Your task to perform on an android device: delete browsing data in the chrome app Image 0: 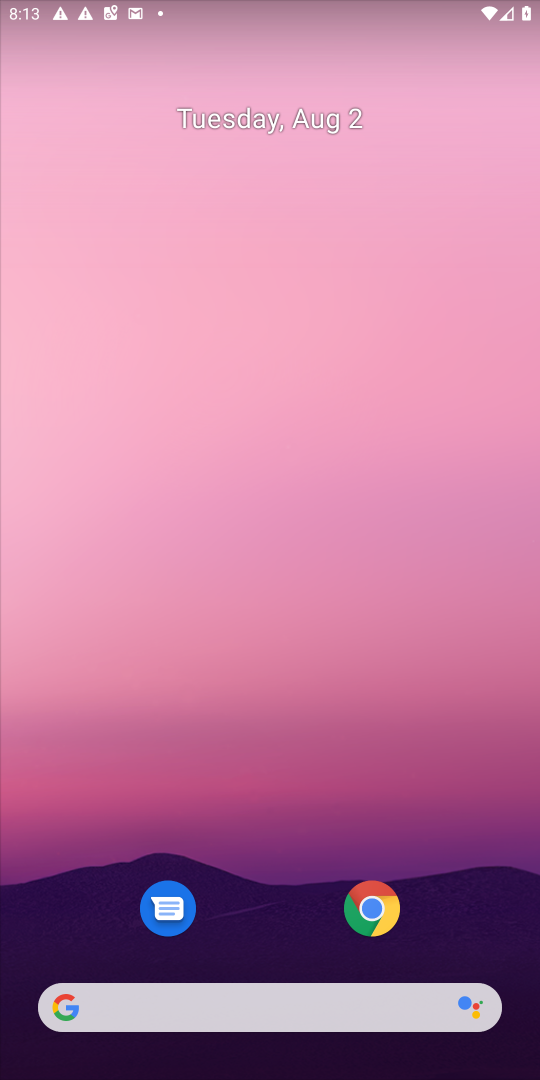
Step 0: click (355, 920)
Your task to perform on an android device: delete browsing data in the chrome app Image 1: 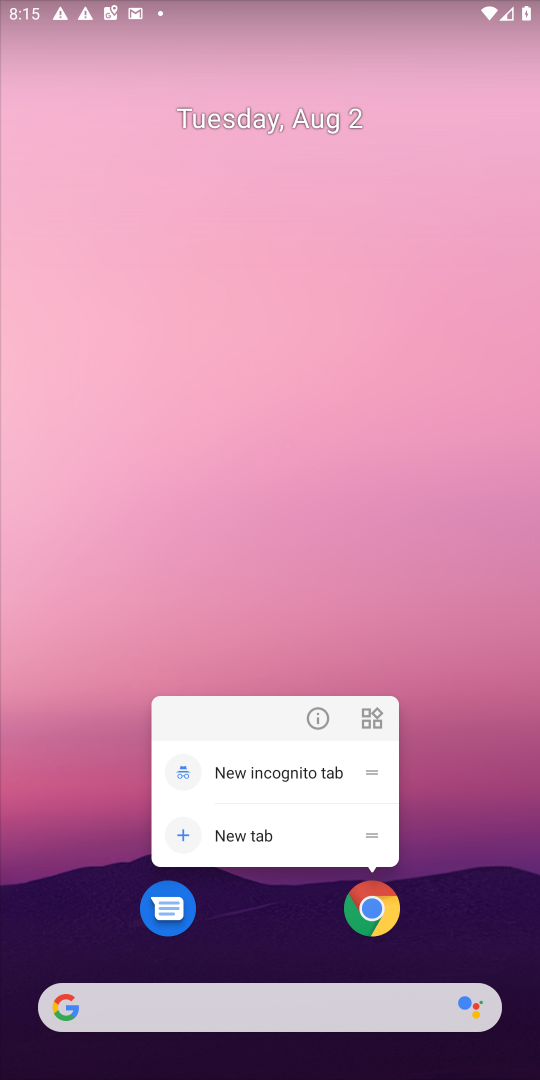
Step 1: click (363, 913)
Your task to perform on an android device: delete browsing data in the chrome app Image 2: 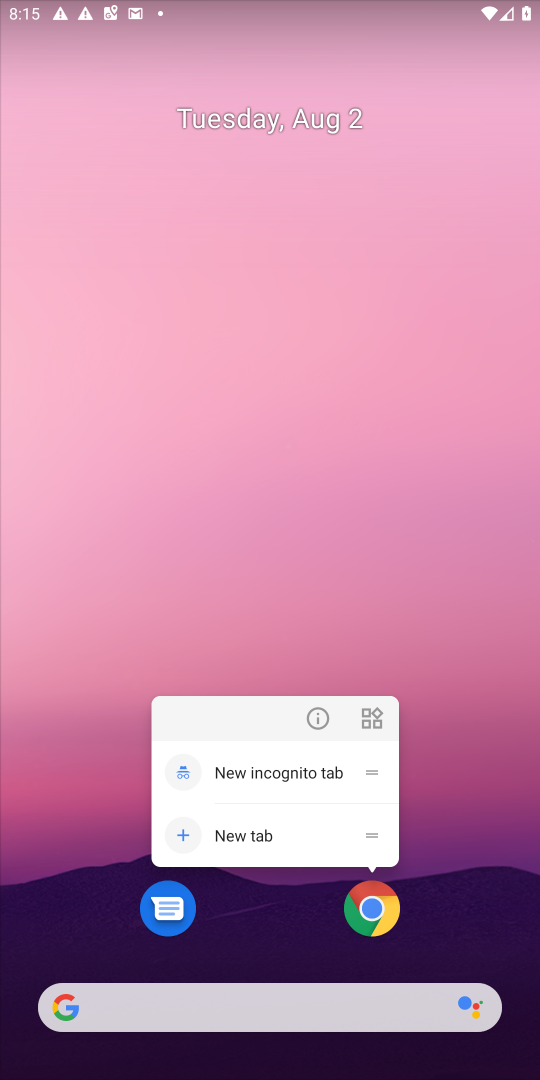
Step 2: click (363, 913)
Your task to perform on an android device: delete browsing data in the chrome app Image 3: 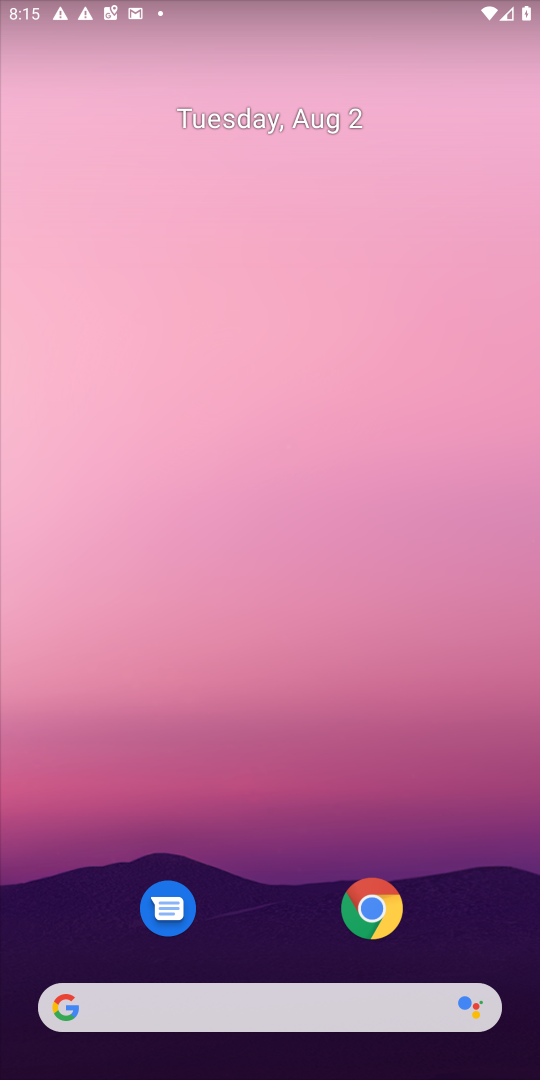
Step 3: click (363, 913)
Your task to perform on an android device: delete browsing data in the chrome app Image 4: 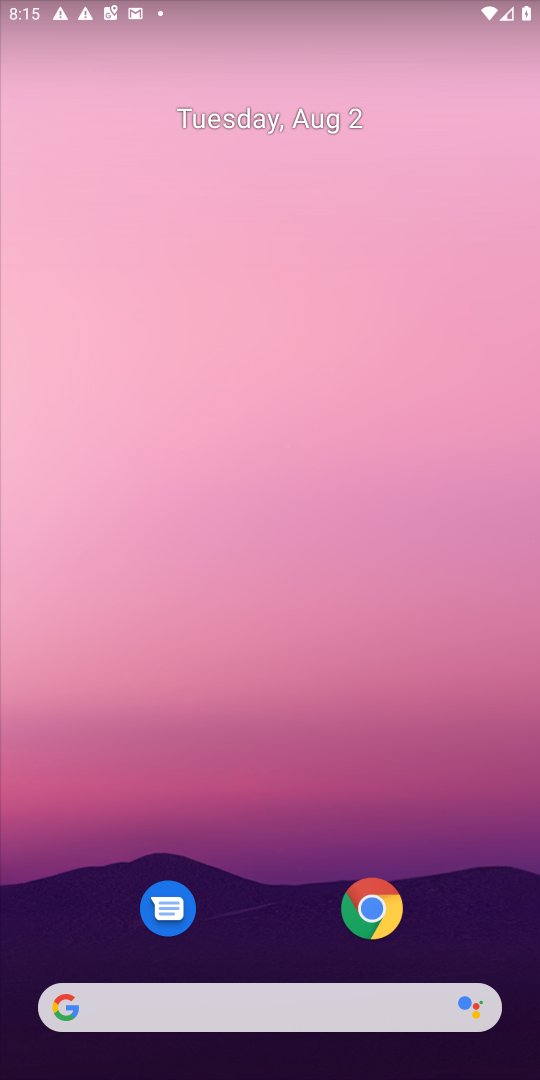
Step 4: click (363, 913)
Your task to perform on an android device: delete browsing data in the chrome app Image 5: 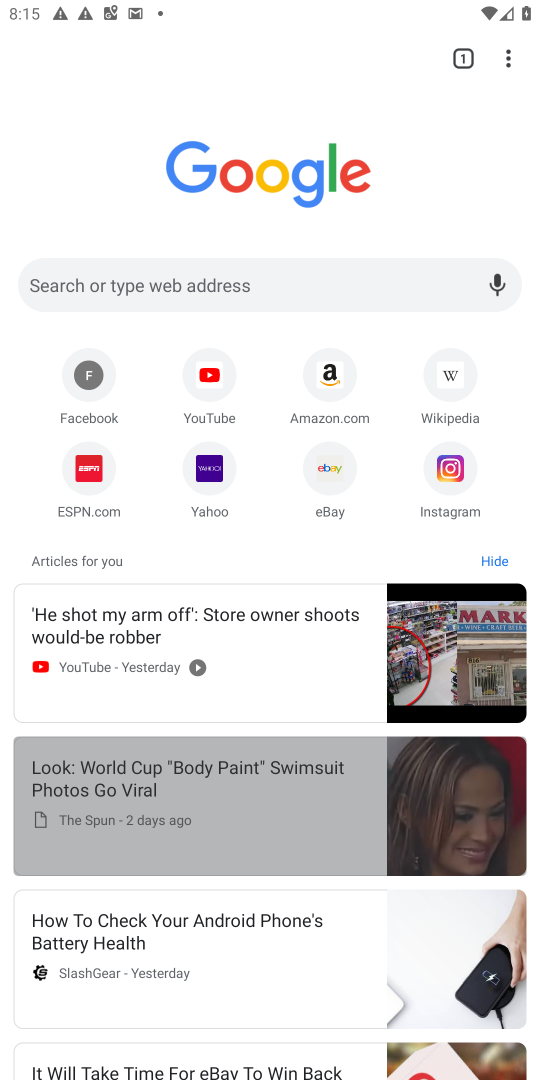
Step 5: click (363, 913)
Your task to perform on an android device: delete browsing data in the chrome app Image 6: 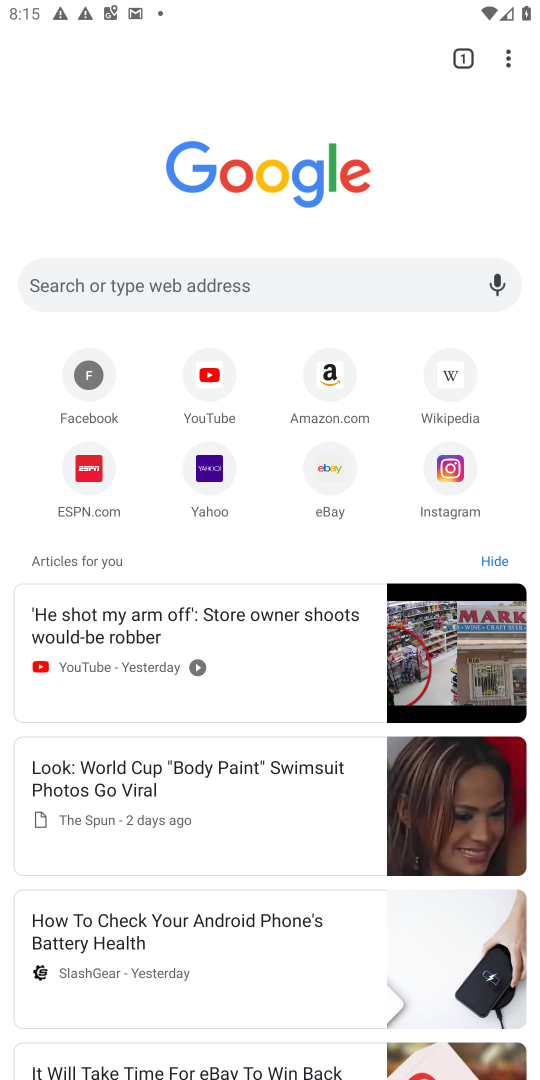
Step 6: click (500, 40)
Your task to perform on an android device: delete browsing data in the chrome app Image 7: 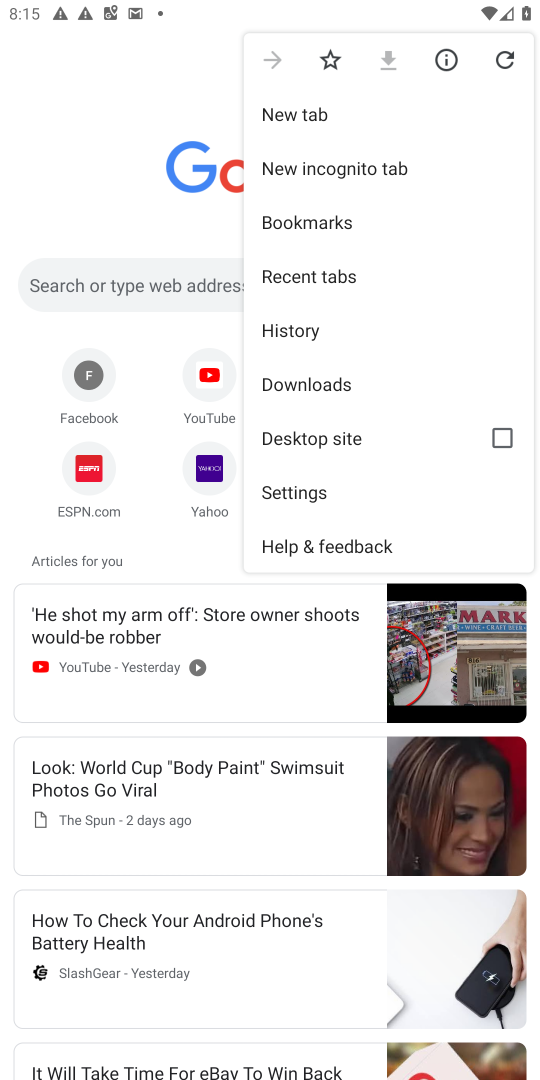
Step 7: click (308, 485)
Your task to perform on an android device: delete browsing data in the chrome app Image 8: 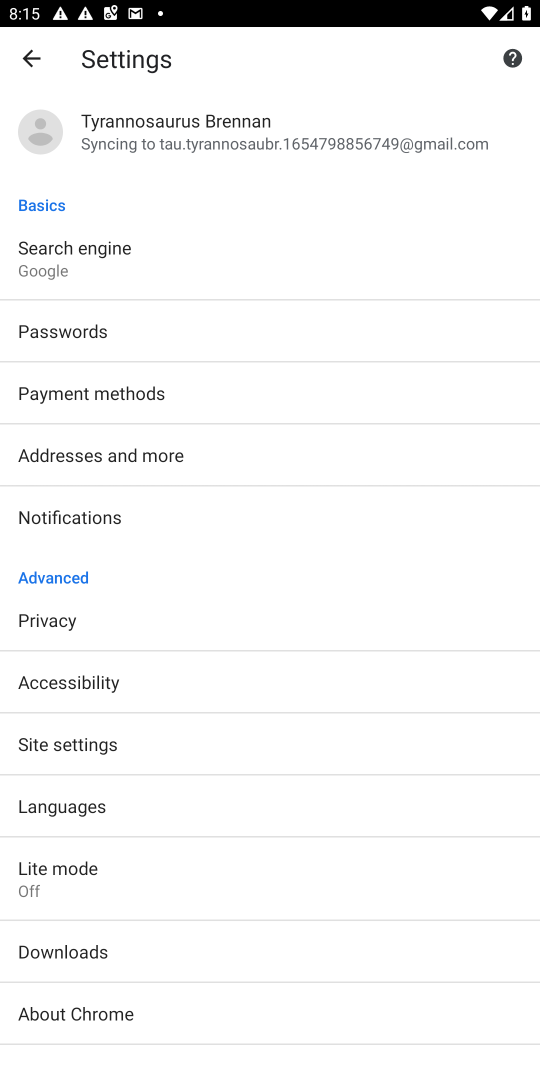
Step 8: click (31, 62)
Your task to perform on an android device: delete browsing data in the chrome app Image 9: 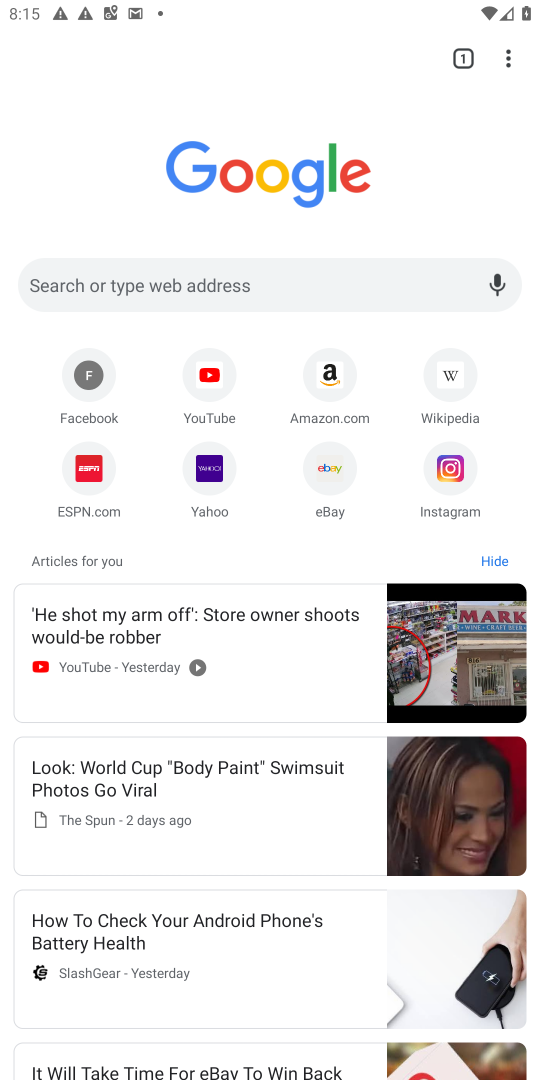
Step 9: click (512, 61)
Your task to perform on an android device: delete browsing data in the chrome app Image 10: 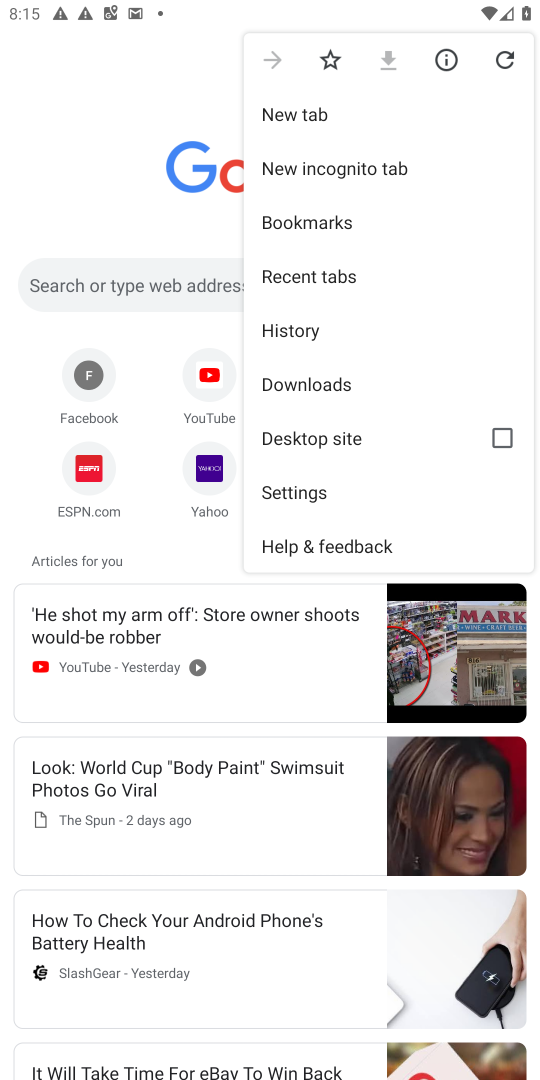
Step 10: click (324, 337)
Your task to perform on an android device: delete browsing data in the chrome app Image 11: 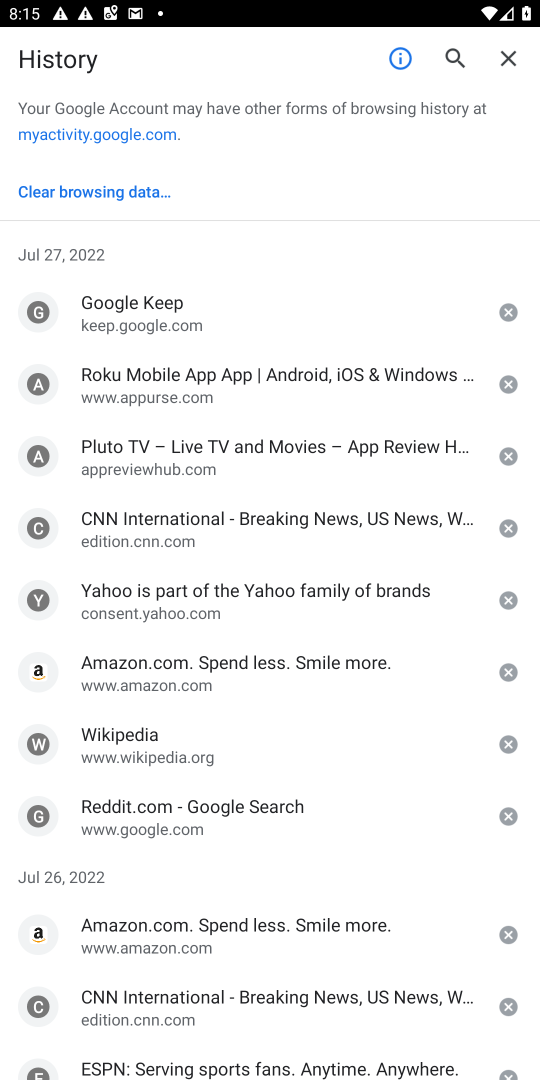
Step 11: click (97, 190)
Your task to perform on an android device: delete browsing data in the chrome app Image 12: 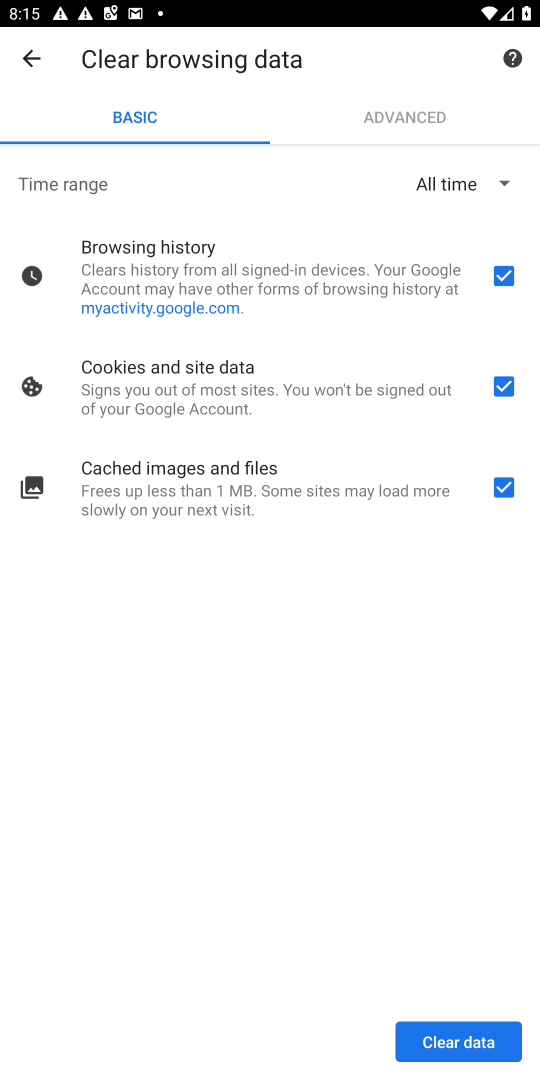
Step 12: click (449, 1043)
Your task to perform on an android device: delete browsing data in the chrome app Image 13: 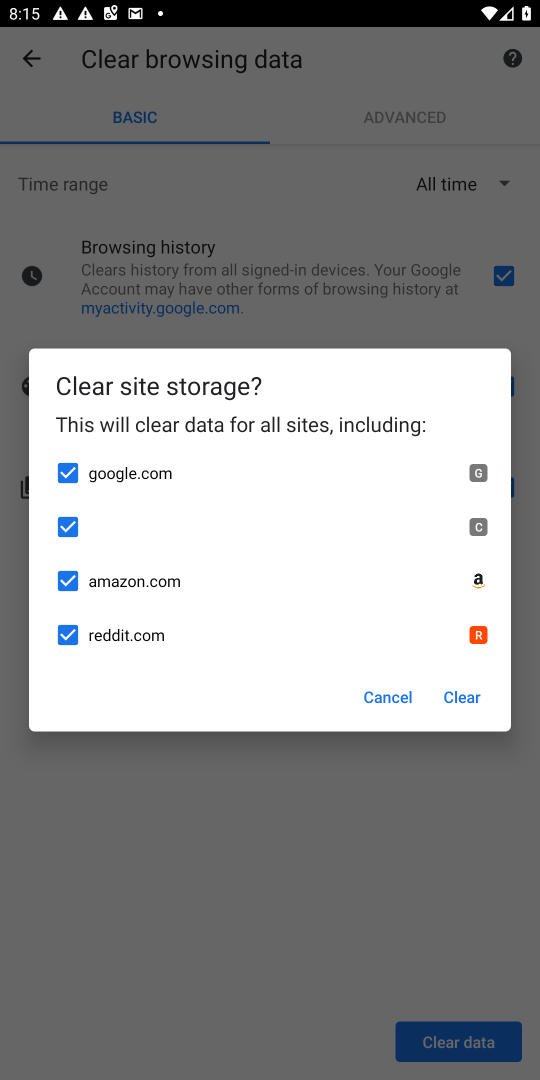
Step 13: click (470, 689)
Your task to perform on an android device: delete browsing data in the chrome app Image 14: 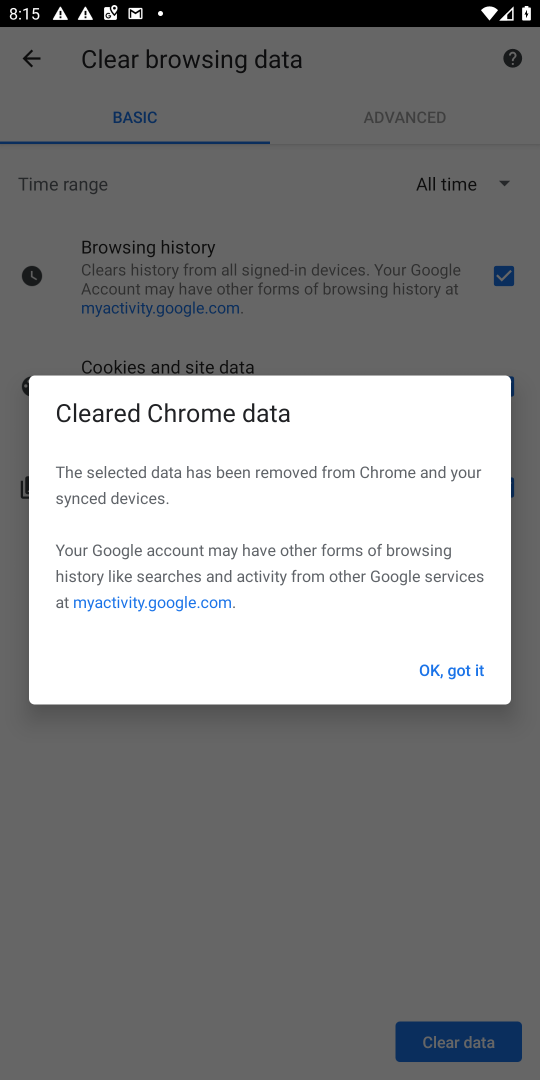
Step 14: task complete